Your task to perform on an android device: Open Reddit.com Image 0: 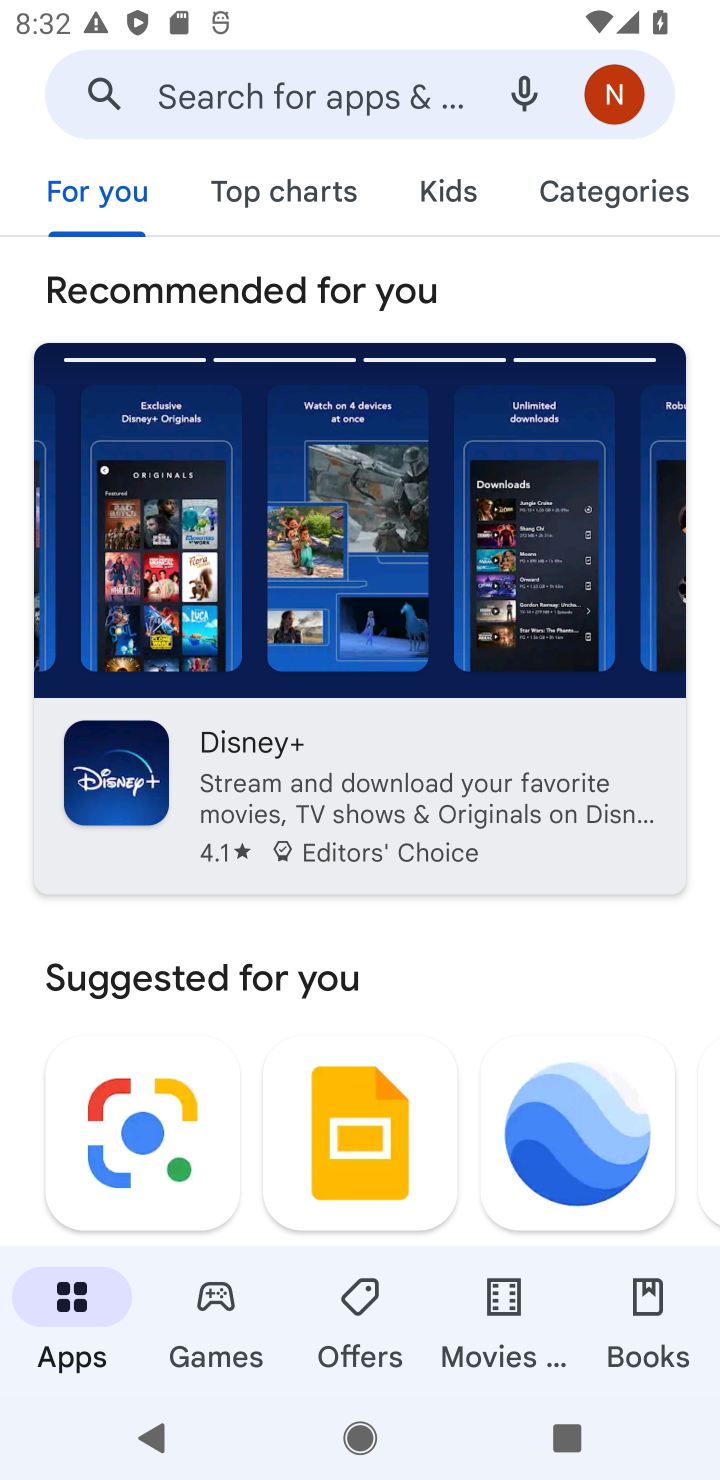
Step 0: press home button
Your task to perform on an android device: Open Reddit.com Image 1: 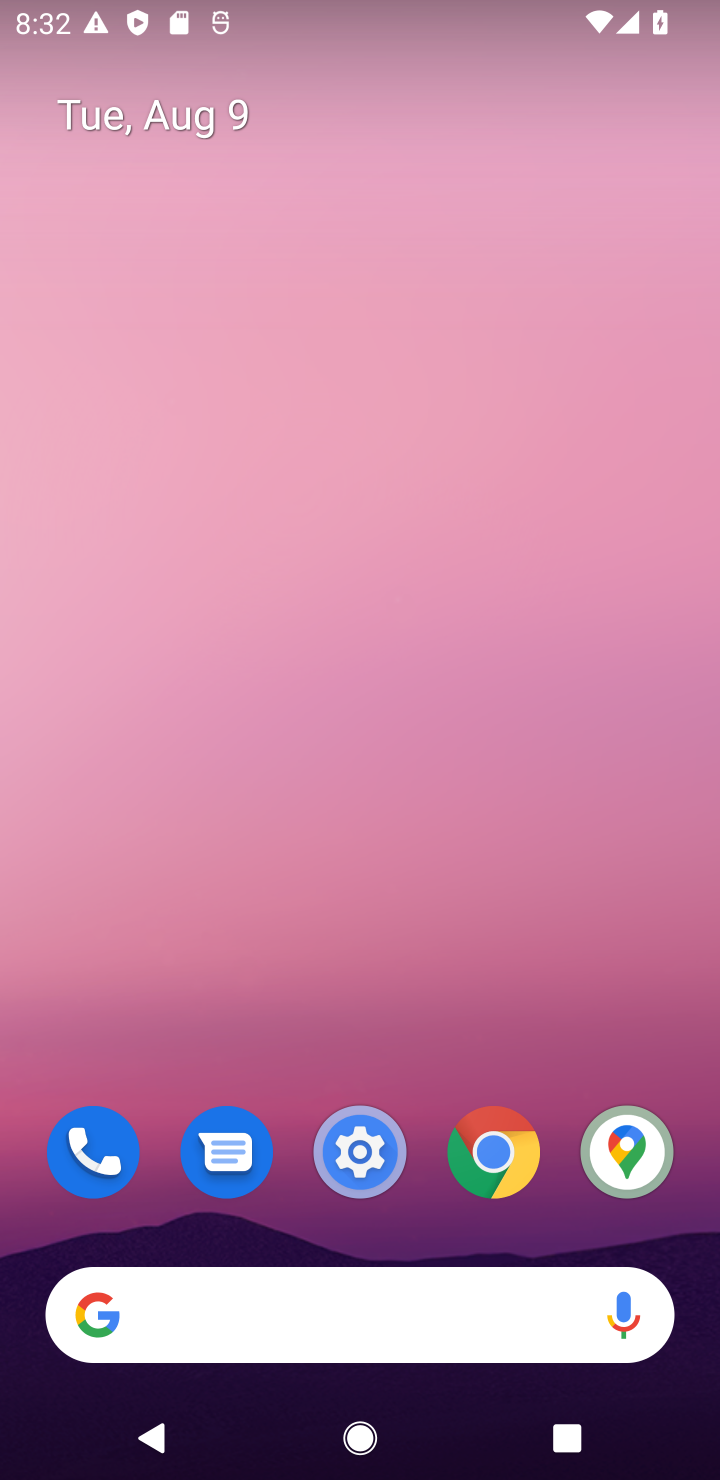
Step 1: click (529, 1282)
Your task to perform on an android device: Open Reddit.com Image 2: 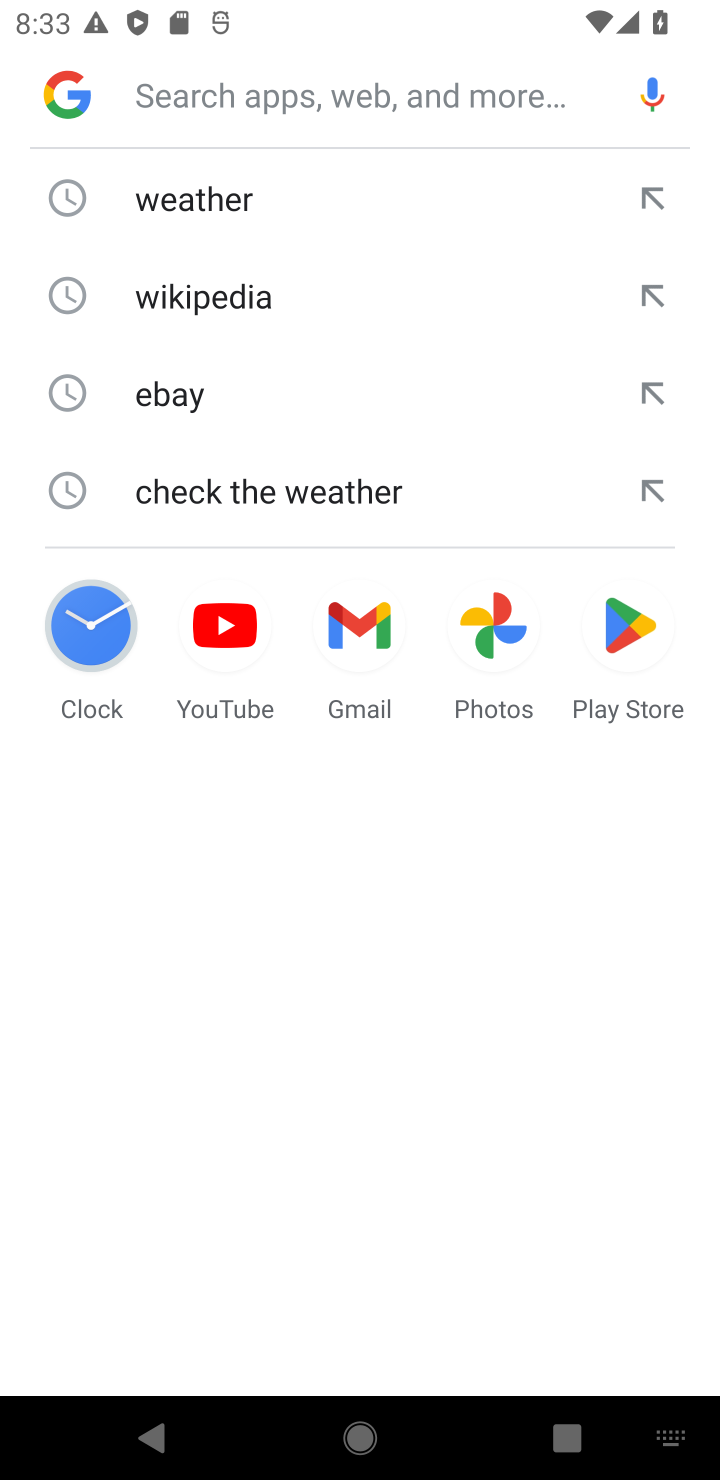
Step 2: type "reddit"
Your task to perform on an android device: Open Reddit.com Image 3: 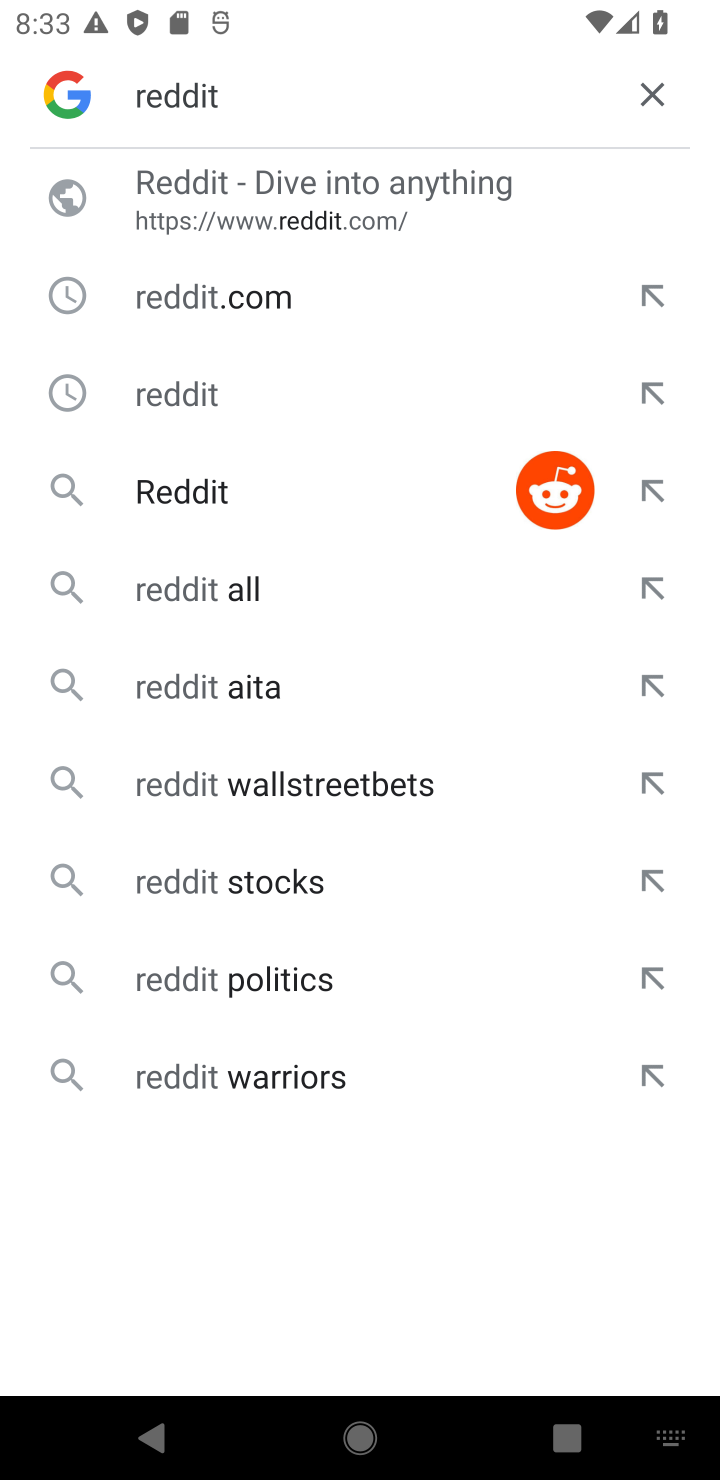
Step 3: click (229, 193)
Your task to perform on an android device: Open Reddit.com Image 4: 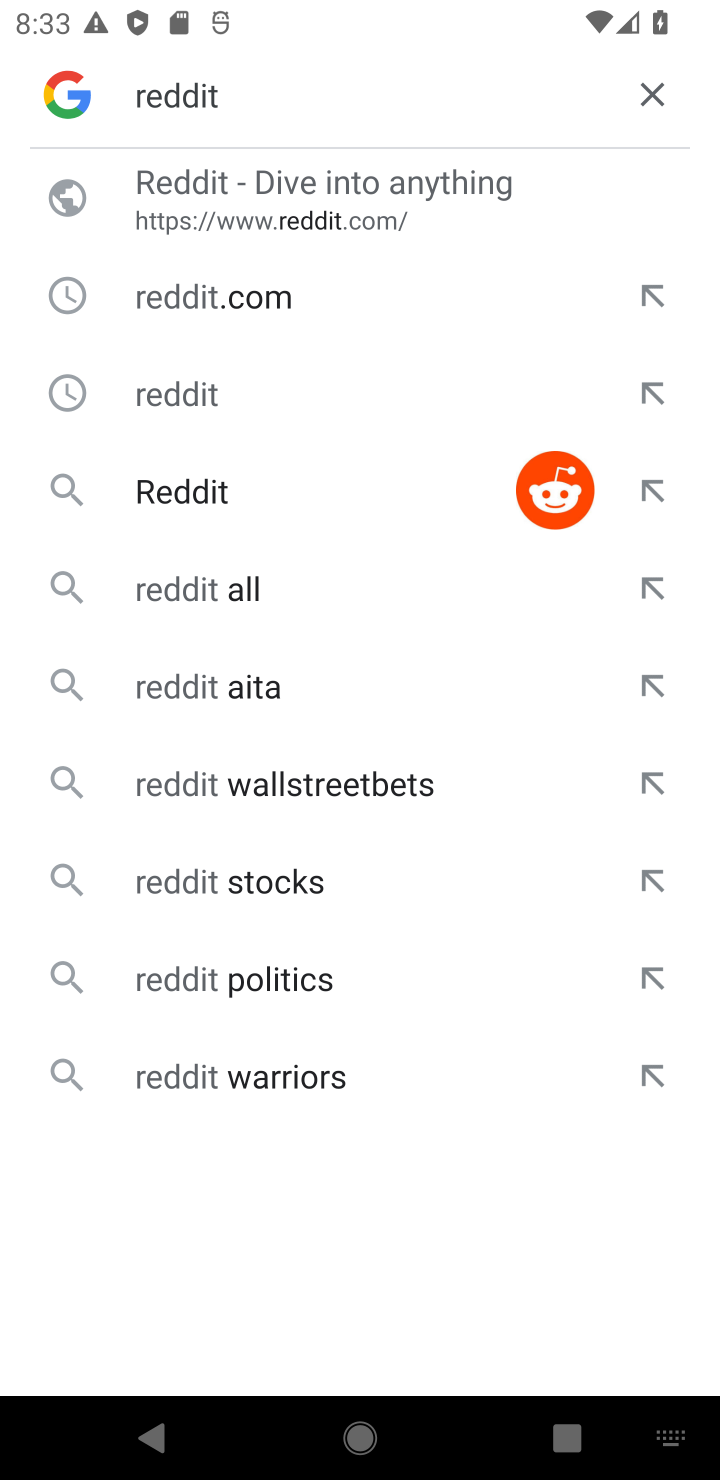
Step 4: click (229, 193)
Your task to perform on an android device: Open Reddit.com Image 5: 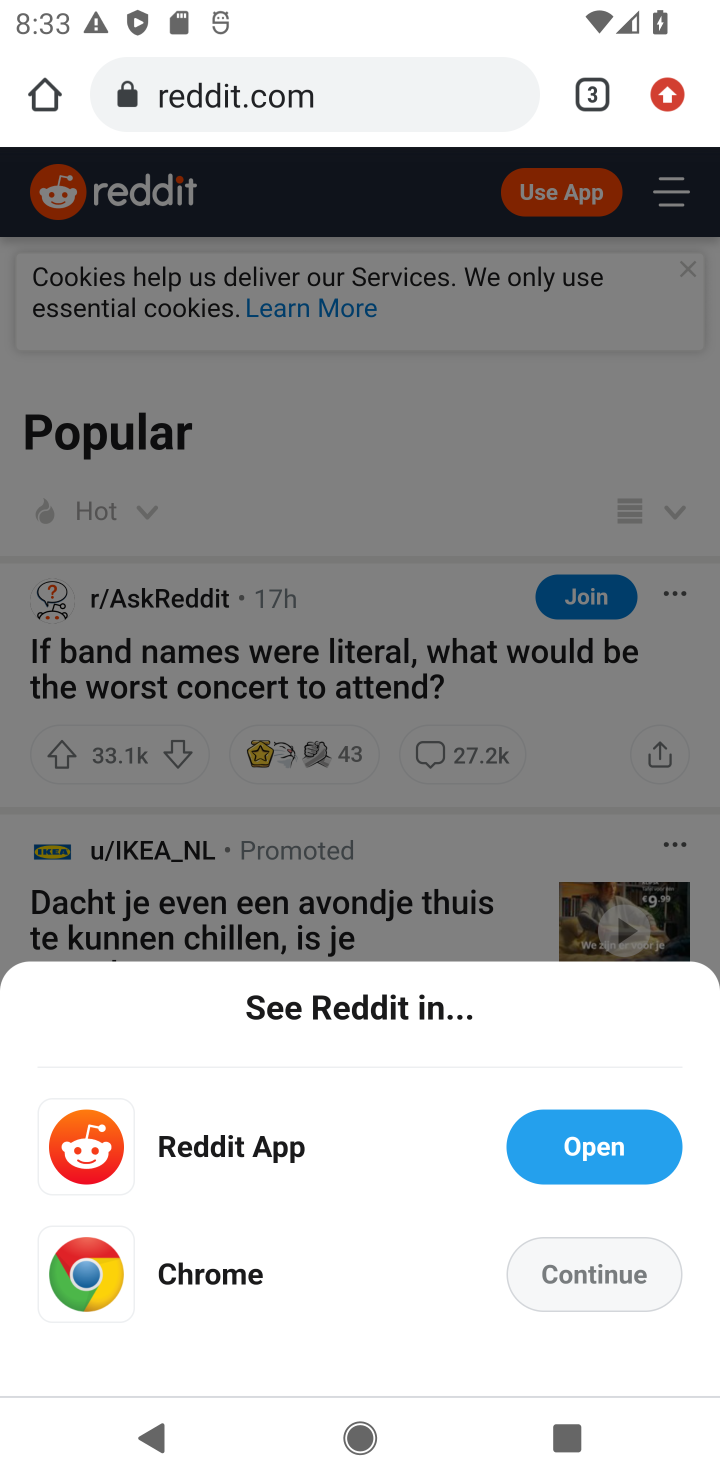
Step 5: task complete